Your task to perform on an android device: make emails show in primary in the gmail app Image 0: 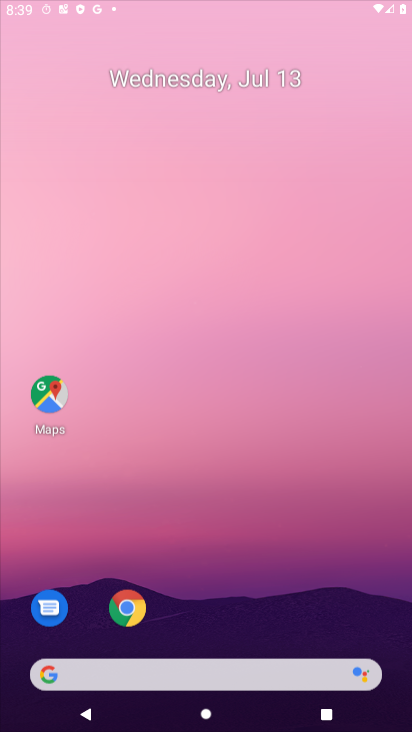
Step 0: click (308, 168)
Your task to perform on an android device: make emails show in primary in the gmail app Image 1: 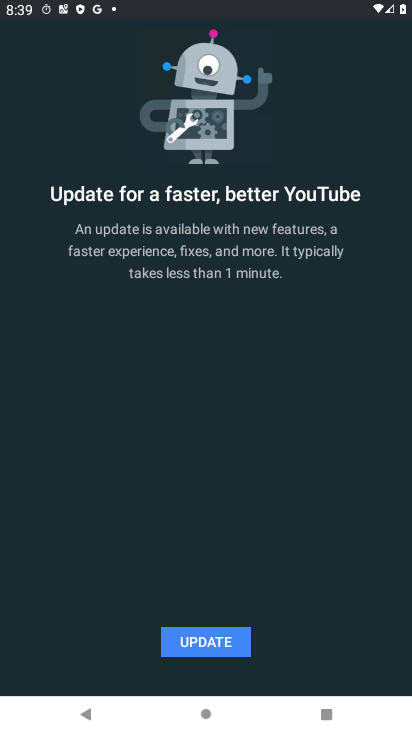
Step 1: press back button
Your task to perform on an android device: make emails show in primary in the gmail app Image 2: 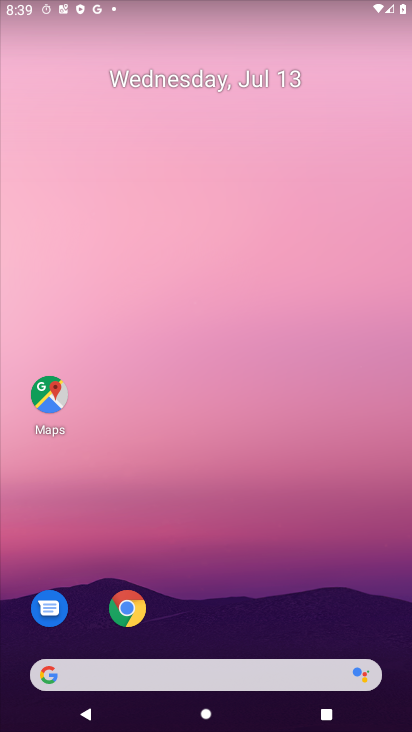
Step 2: drag from (233, 622) to (144, 148)
Your task to perform on an android device: make emails show in primary in the gmail app Image 3: 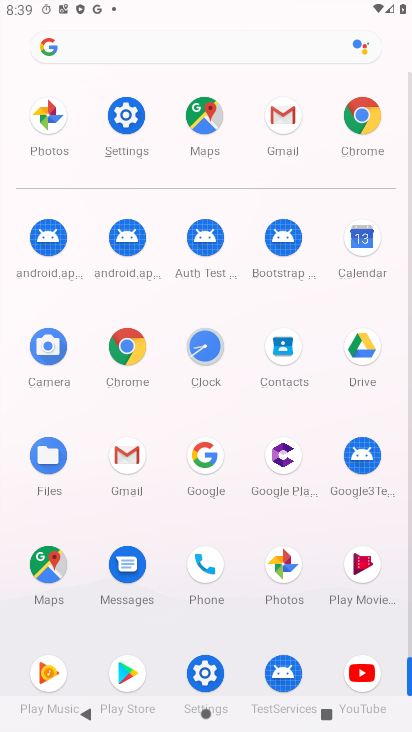
Step 3: click (120, 450)
Your task to perform on an android device: make emails show in primary in the gmail app Image 4: 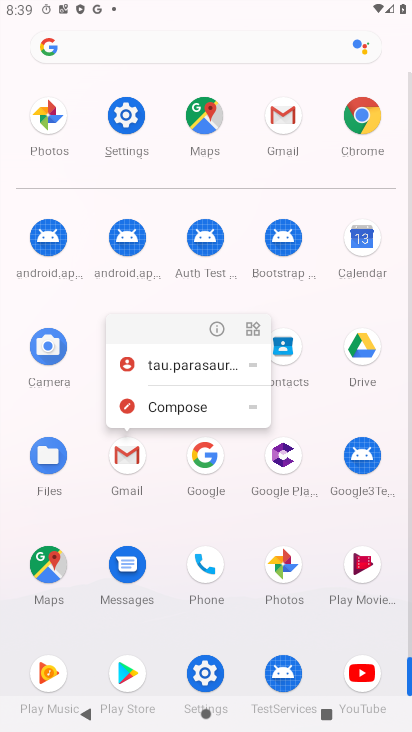
Step 4: click (121, 450)
Your task to perform on an android device: make emails show in primary in the gmail app Image 5: 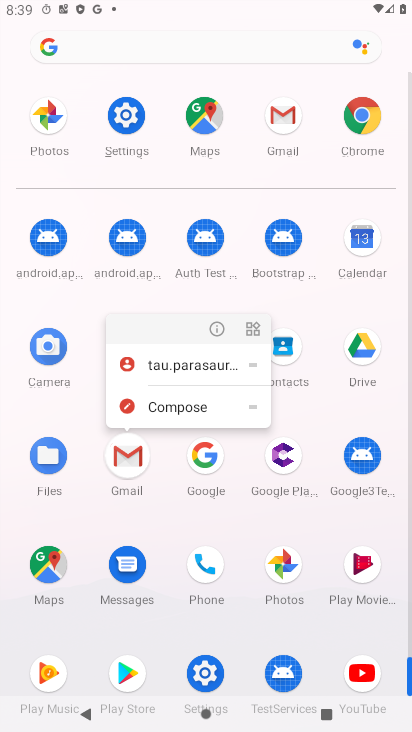
Step 5: click (123, 450)
Your task to perform on an android device: make emails show in primary in the gmail app Image 6: 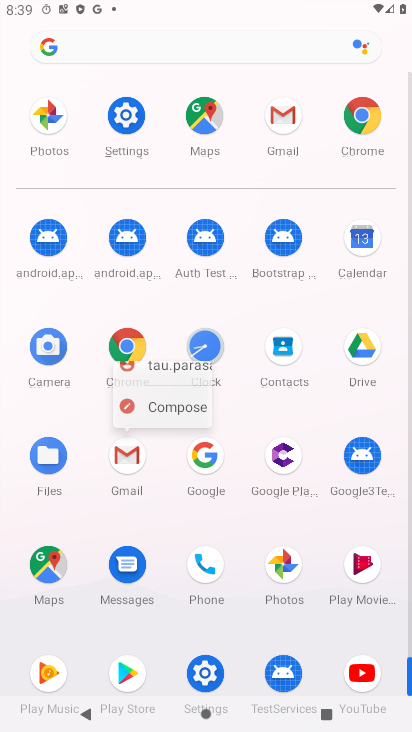
Step 6: click (125, 451)
Your task to perform on an android device: make emails show in primary in the gmail app Image 7: 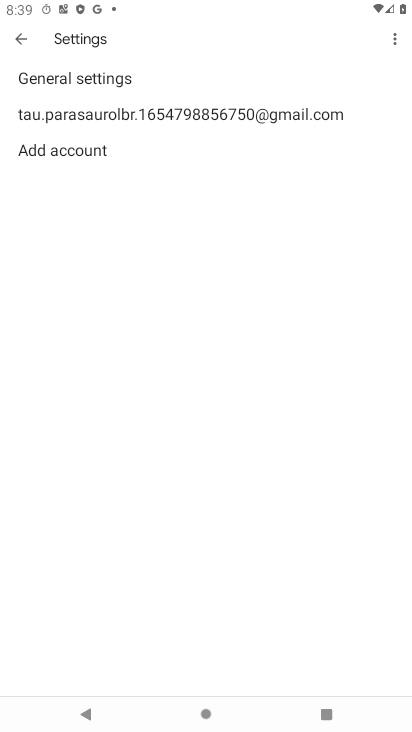
Step 7: click (168, 119)
Your task to perform on an android device: make emails show in primary in the gmail app Image 8: 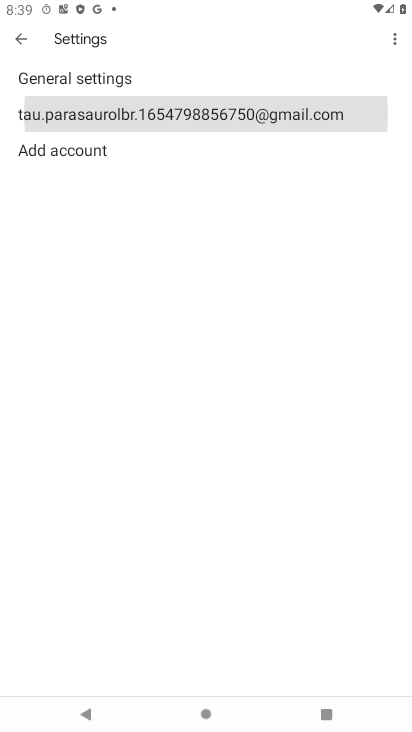
Step 8: click (167, 116)
Your task to perform on an android device: make emails show in primary in the gmail app Image 9: 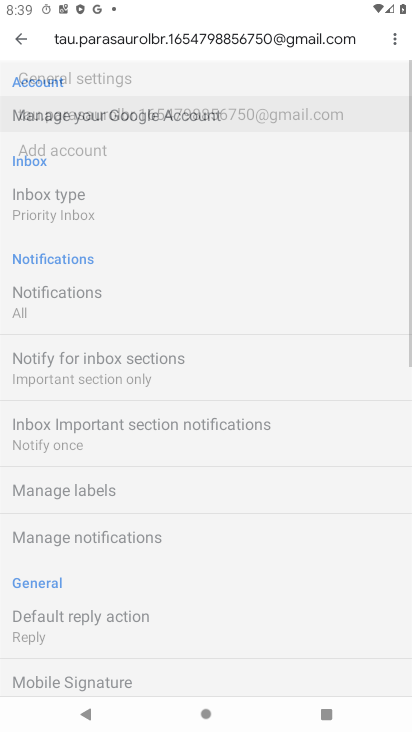
Step 9: click (167, 116)
Your task to perform on an android device: make emails show in primary in the gmail app Image 10: 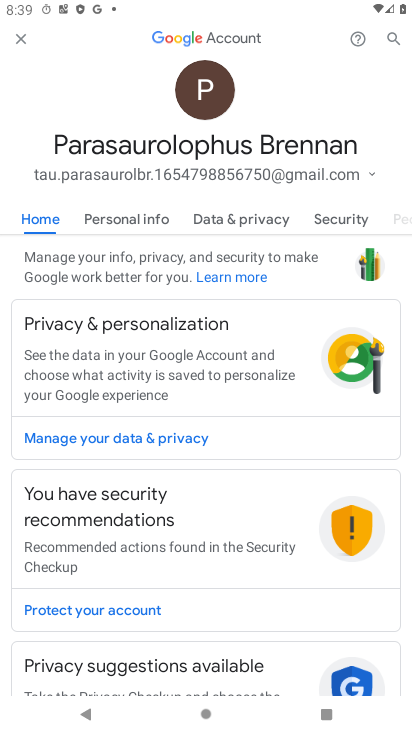
Step 10: click (21, 37)
Your task to perform on an android device: make emails show in primary in the gmail app Image 11: 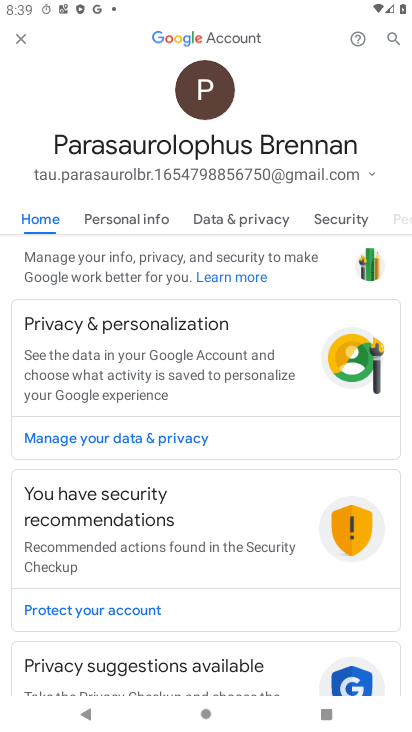
Step 11: click (25, 44)
Your task to perform on an android device: make emails show in primary in the gmail app Image 12: 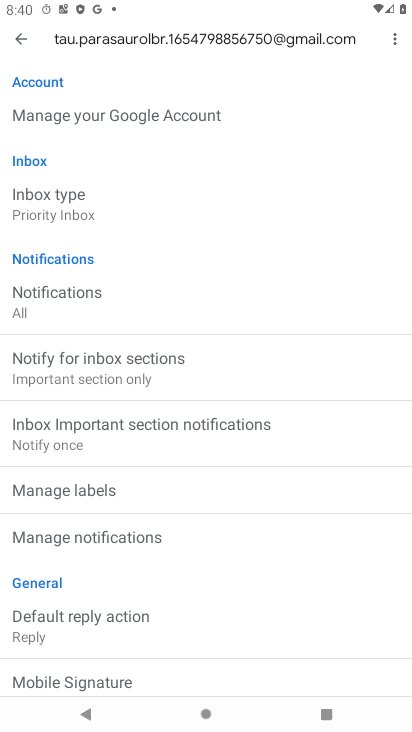
Step 12: drag from (53, 153) to (71, 474)
Your task to perform on an android device: make emails show in primary in the gmail app Image 13: 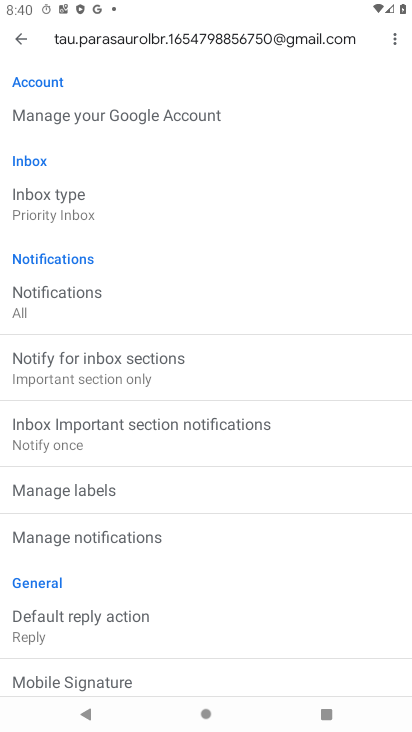
Step 13: click (32, 201)
Your task to perform on an android device: make emails show in primary in the gmail app Image 14: 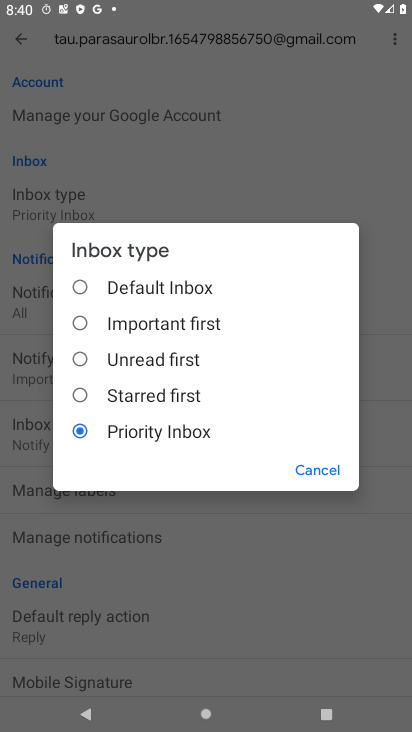
Step 14: click (80, 284)
Your task to perform on an android device: make emails show in primary in the gmail app Image 15: 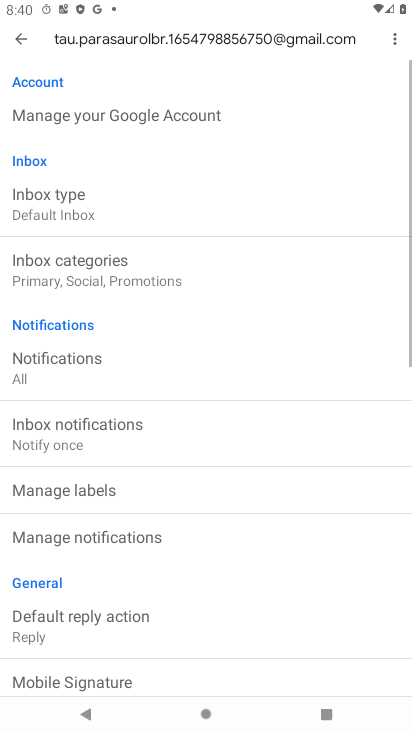
Step 15: click (84, 269)
Your task to perform on an android device: make emails show in primary in the gmail app Image 16: 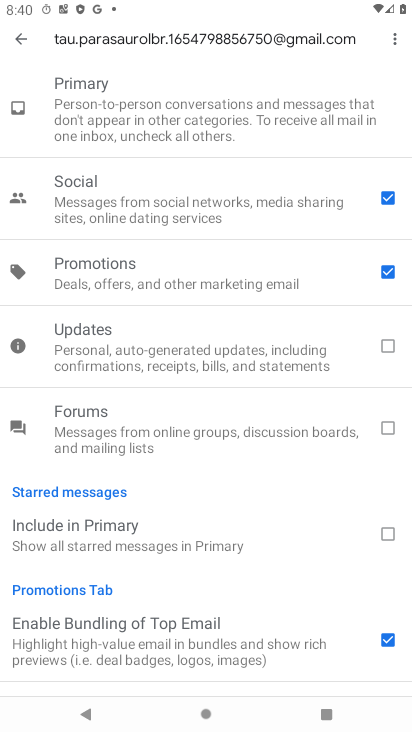
Step 16: click (109, 102)
Your task to perform on an android device: make emails show in primary in the gmail app Image 17: 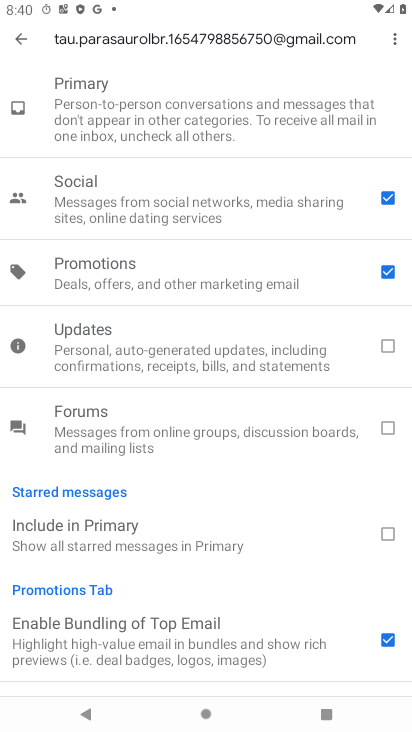
Step 17: task complete